Your task to perform on an android device: Is it going to rain tomorrow? Image 0: 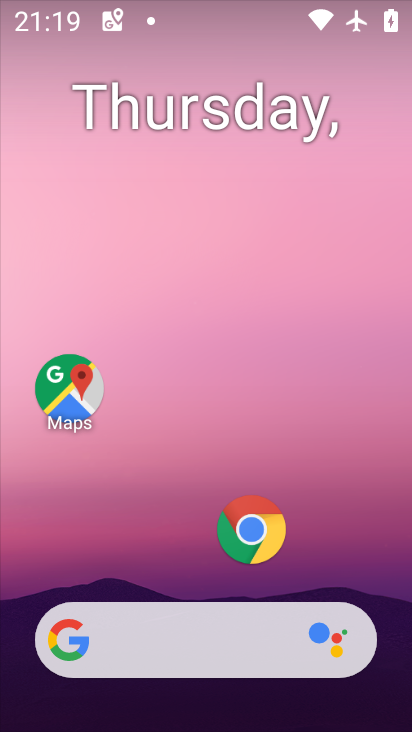
Step 0: drag from (6, 297) to (402, 281)
Your task to perform on an android device: Is it going to rain tomorrow? Image 1: 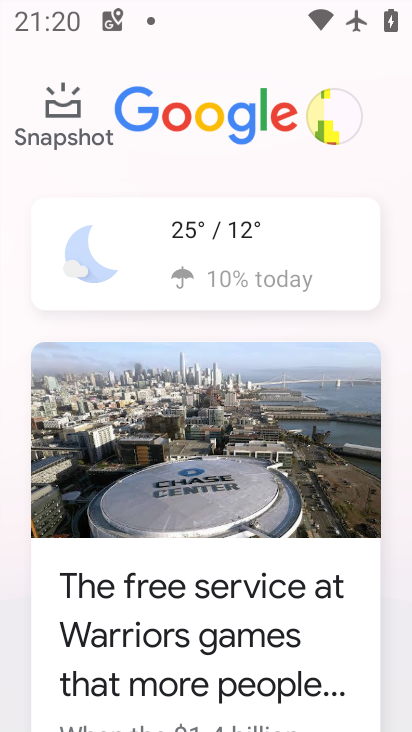
Step 1: click (223, 241)
Your task to perform on an android device: Is it going to rain tomorrow? Image 2: 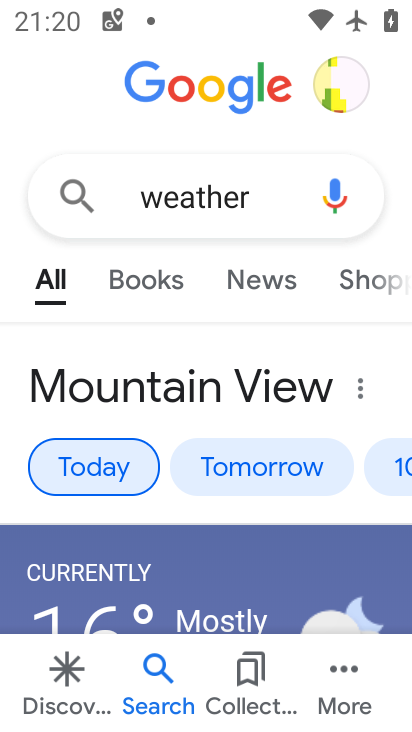
Step 2: drag from (218, 549) to (226, 176)
Your task to perform on an android device: Is it going to rain tomorrow? Image 3: 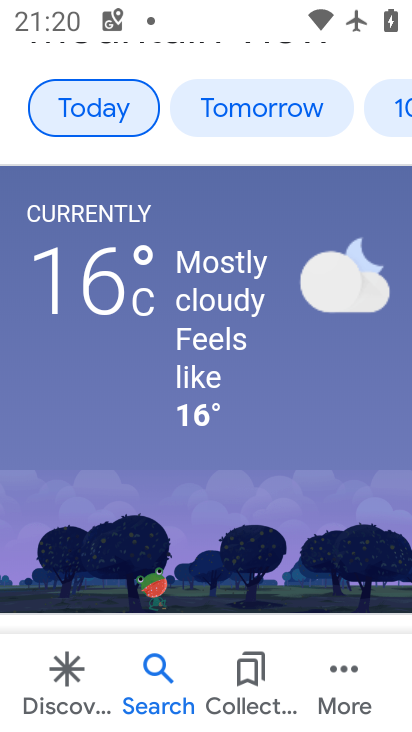
Step 3: drag from (204, 555) to (231, 72)
Your task to perform on an android device: Is it going to rain tomorrow? Image 4: 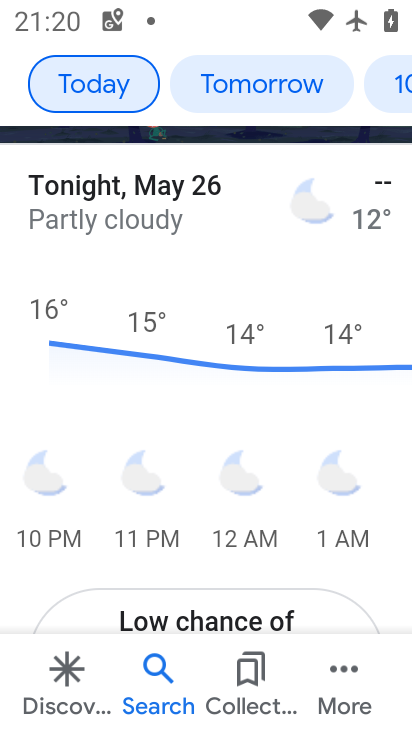
Step 4: drag from (358, 484) to (0, 505)
Your task to perform on an android device: Is it going to rain tomorrow? Image 5: 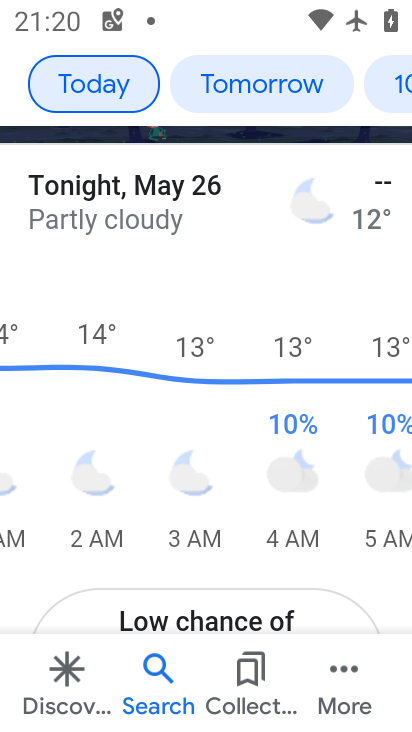
Step 5: drag from (377, 482) to (29, 470)
Your task to perform on an android device: Is it going to rain tomorrow? Image 6: 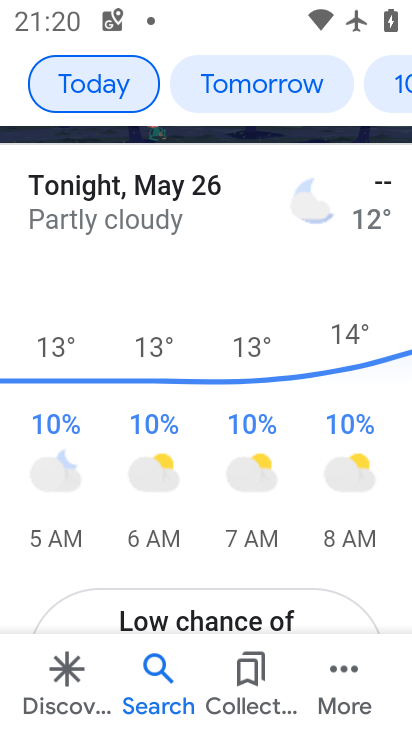
Step 6: drag from (364, 473) to (2, 493)
Your task to perform on an android device: Is it going to rain tomorrow? Image 7: 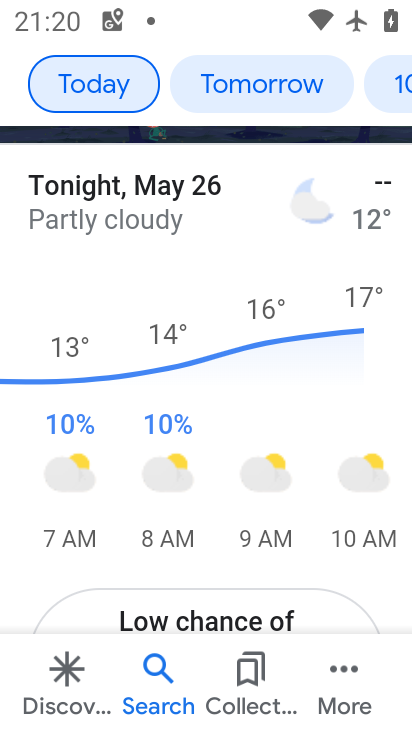
Step 7: click (218, 88)
Your task to perform on an android device: Is it going to rain tomorrow? Image 8: 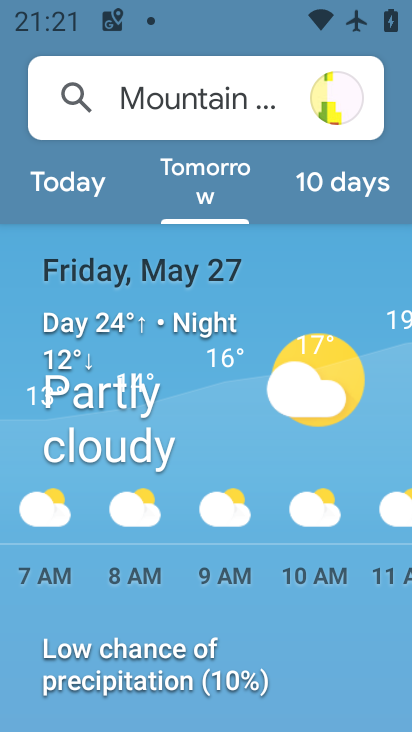
Step 8: drag from (357, 511) to (11, 524)
Your task to perform on an android device: Is it going to rain tomorrow? Image 9: 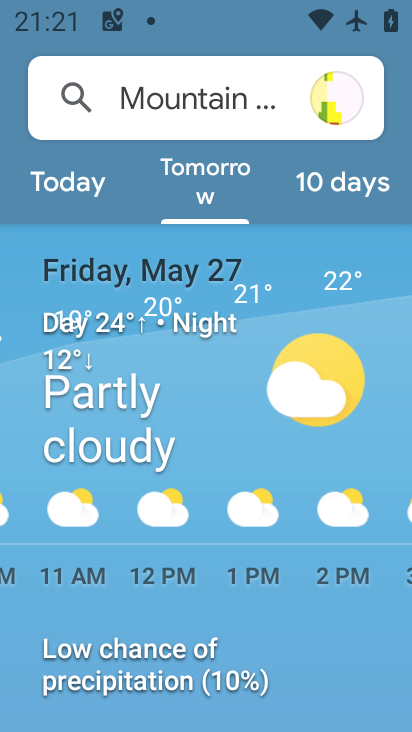
Step 9: drag from (388, 517) to (58, 504)
Your task to perform on an android device: Is it going to rain tomorrow? Image 10: 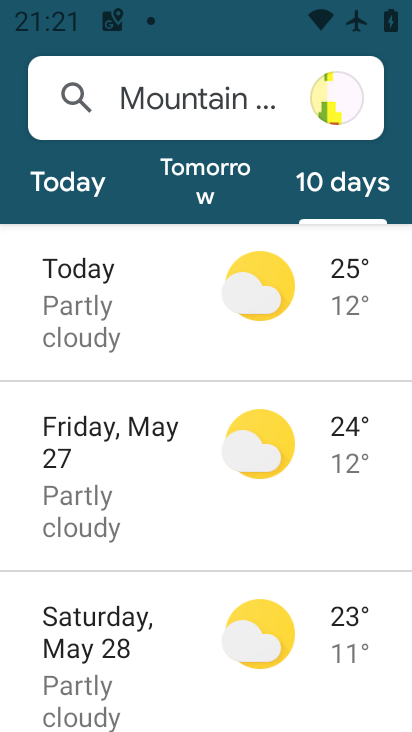
Step 10: click (208, 184)
Your task to perform on an android device: Is it going to rain tomorrow? Image 11: 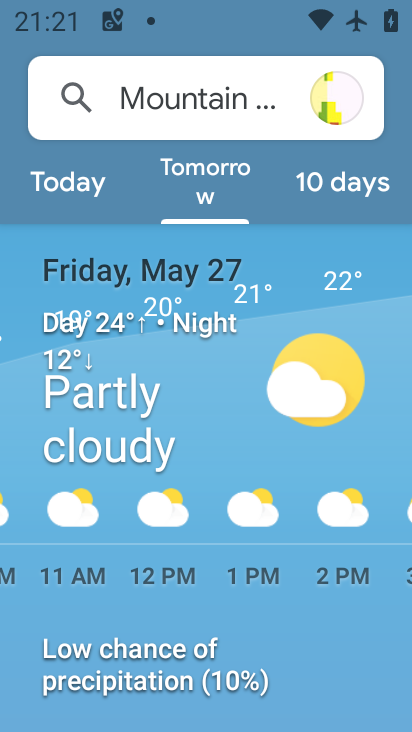
Step 11: task complete